Your task to perform on an android device: clear history in the chrome app Image 0: 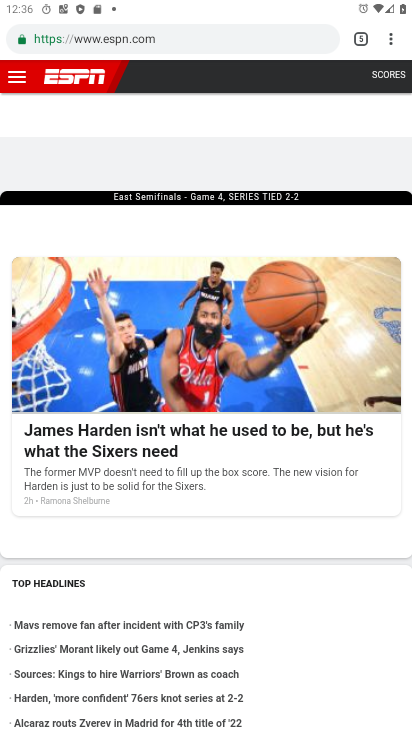
Step 0: drag from (390, 37) to (386, 252)
Your task to perform on an android device: clear history in the chrome app Image 1: 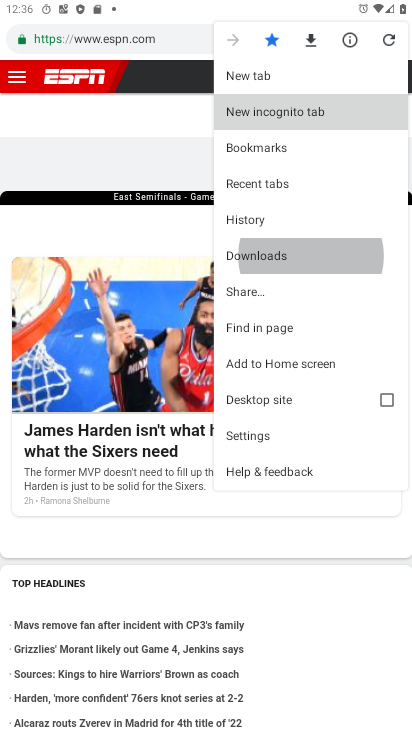
Step 1: click (388, 29)
Your task to perform on an android device: clear history in the chrome app Image 2: 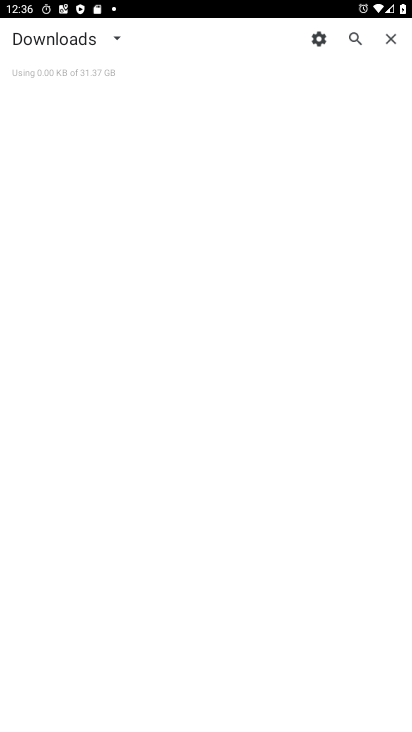
Step 2: drag from (387, 35) to (250, 234)
Your task to perform on an android device: clear history in the chrome app Image 3: 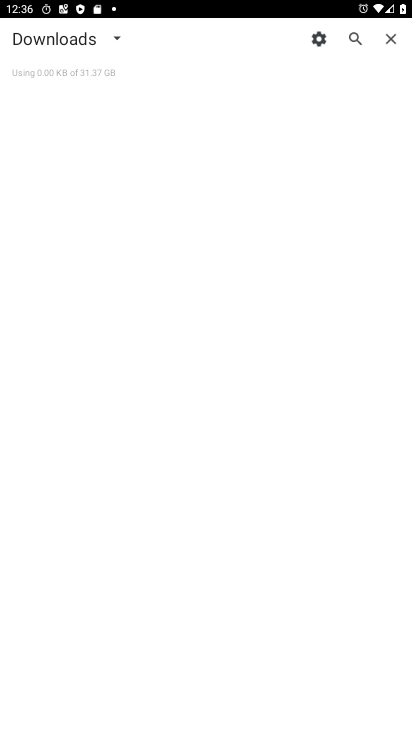
Step 3: press home button
Your task to perform on an android device: clear history in the chrome app Image 4: 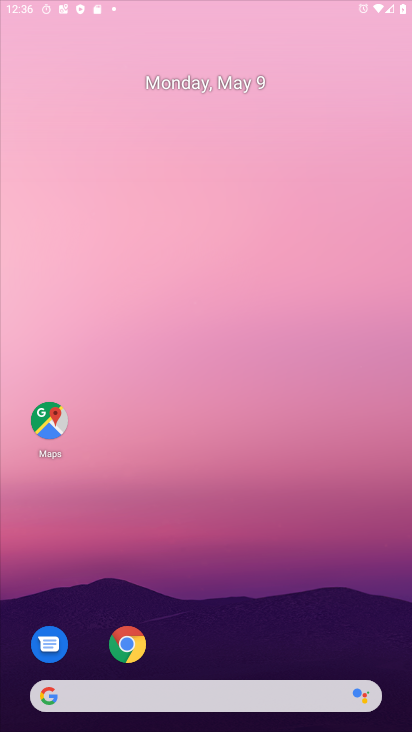
Step 4: click (388, 38)
Your task to perform on an android device: clear history in the chrome app Image 5: 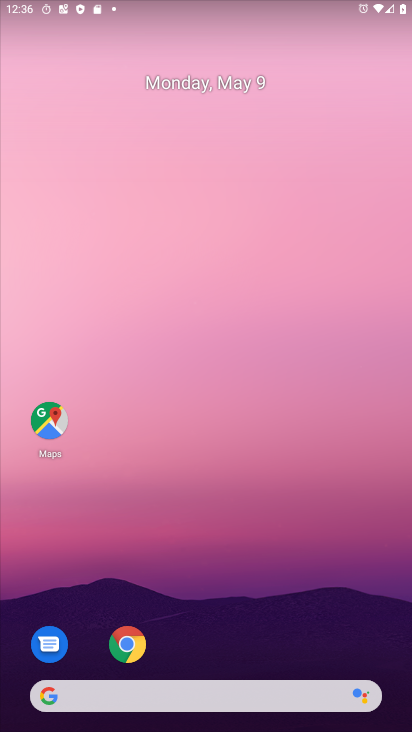
Step 5: click (384, 31)
Your task to perform on an android device: clear history in the chrome app Image 6: 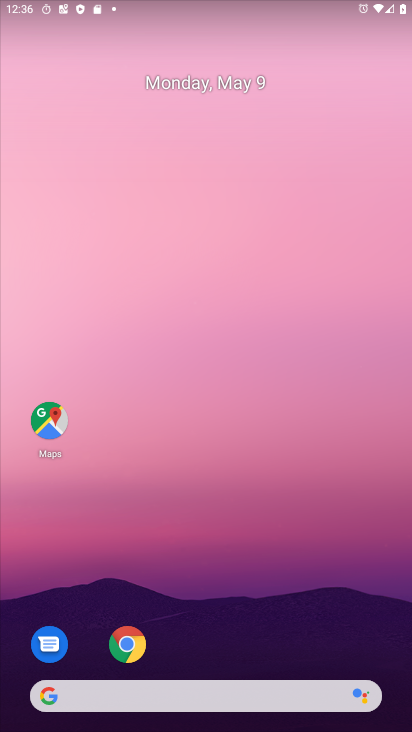
Step 6: drag from (389, 40) to (99, 48)
Your task to perform on an android device: clear history in the chrome app Image 7: 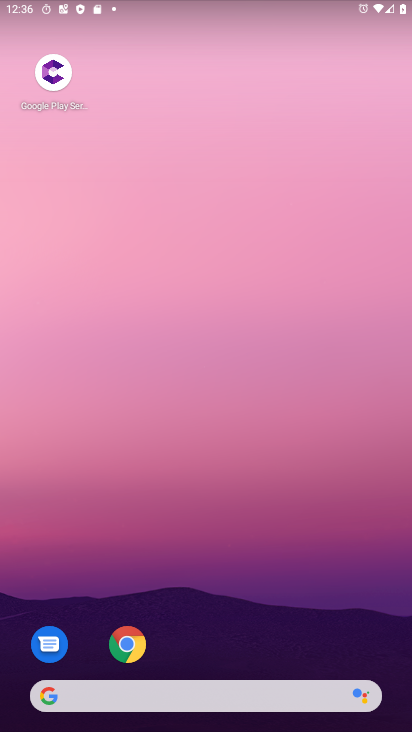
Step 7: drag from (182, 85) to (21, 51)
Your task to perform on an android device: clear history in the chrome app Image 8: 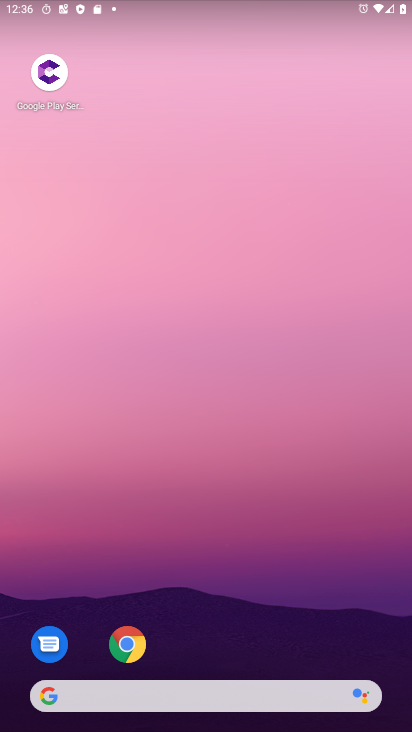
Step 8: drag from (8, 85) to (56, 223)
Your task to perform on an android device: clear history in the chrome app Image 9: 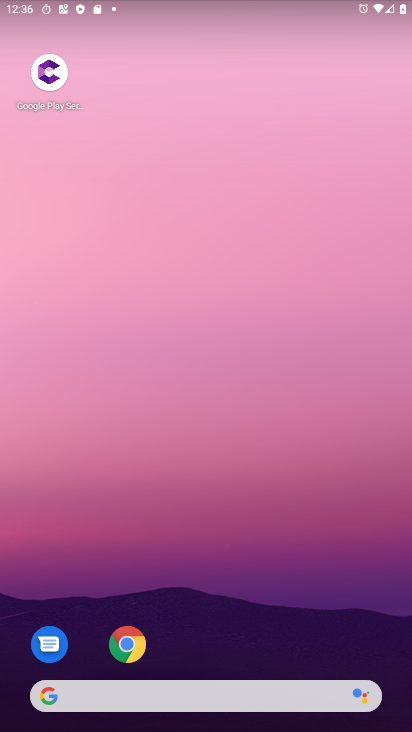
Step 9: drag from (291, 677) to (204, 43)
Your task to perform on an android device: clear history in the chrome app Image 10: 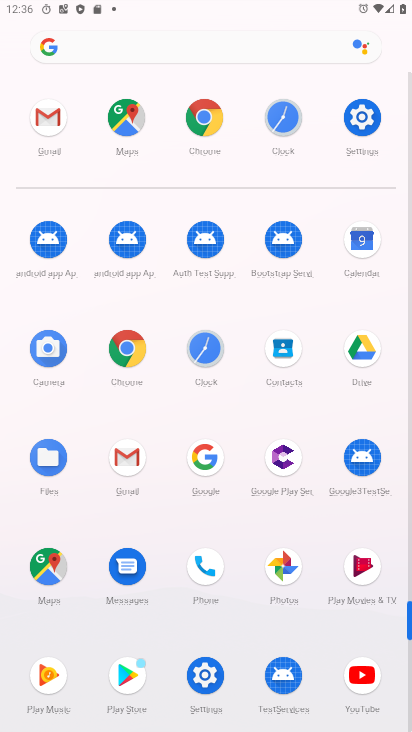
Step 10: click (205, 121)
Your task to perform on an android device: clear history in the chrome app Image 11: 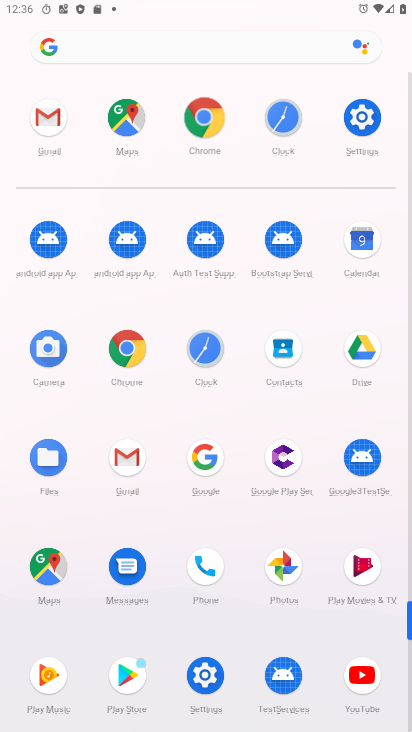
Step 11: click (206, 122)
Your task to perform on an android device: clear history in the chrome app Image 12: 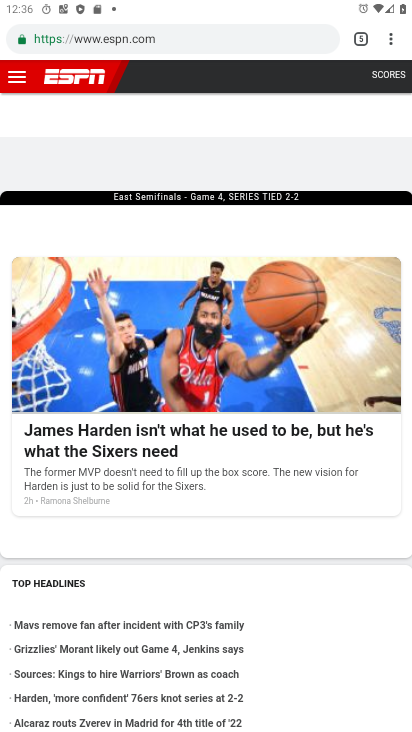
Step 12: drag from (388, 37) to (246, 211)
Your task to perform on an android device: clear history in the chrome app Image 13: 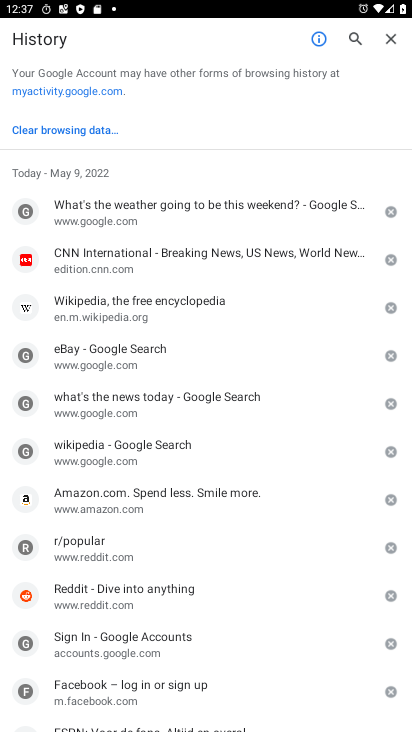
Step 13: click (386, 210)
Your task to perform on an android device: clear history in the chrome app Image 14: 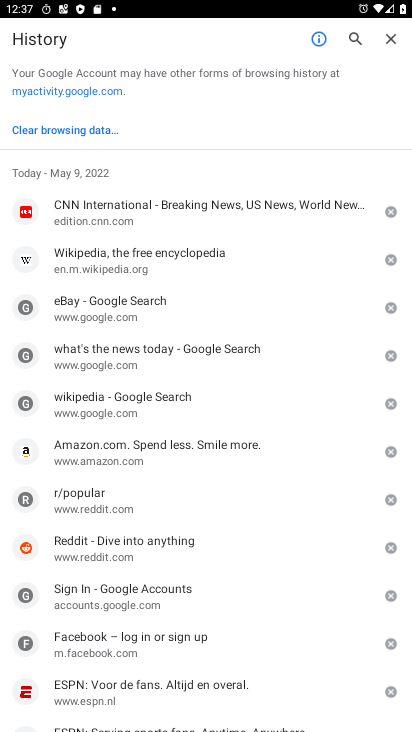
Step 14: task complete